Your task to perform on an android device: clear history in the chrome app Image 0: 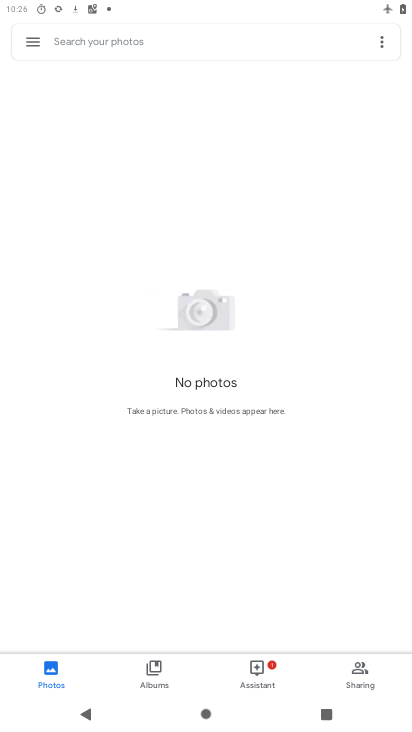
Step 0: press home button
Your task to perform on an android device: clear history in the chrome app Image 1: 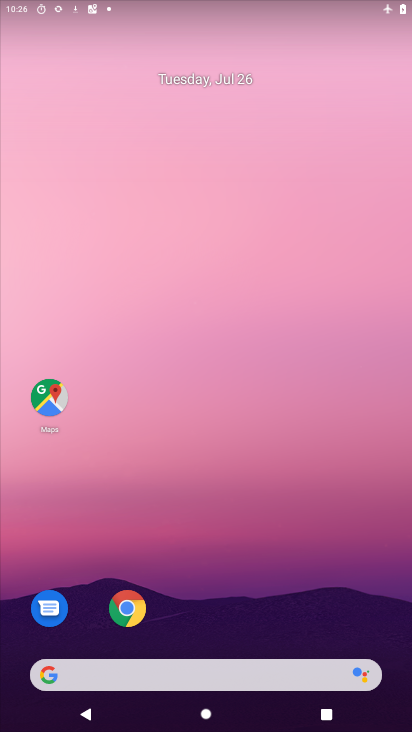
Step 1: click (132, 598)
Your task to perform on an android device: clear history in the chrome app Image 2: 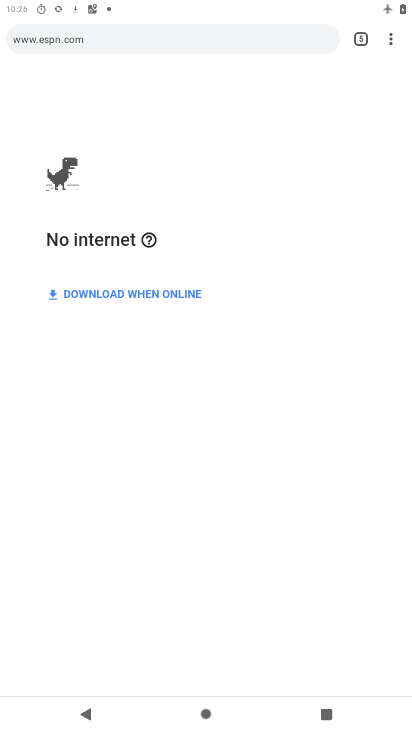
Step 2: click (385, 34)
Your task to perform on an android device: clear history in the chrome app Image 3: 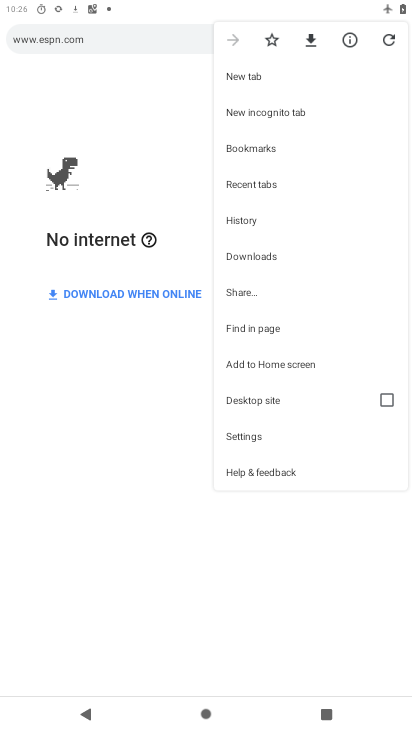
Step 3: click (242, 224)
Your task to perform on an android device: clear history in the chrome app Image 4: 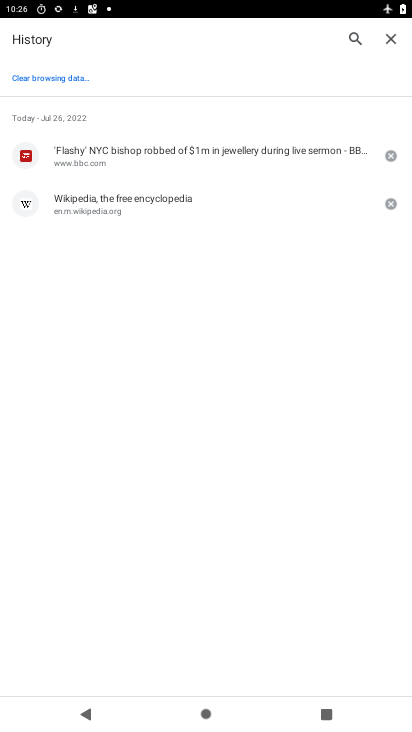
Step 4: click (57, 80)
Your task to perform on an android device: clear history in the chrome app Image 5: 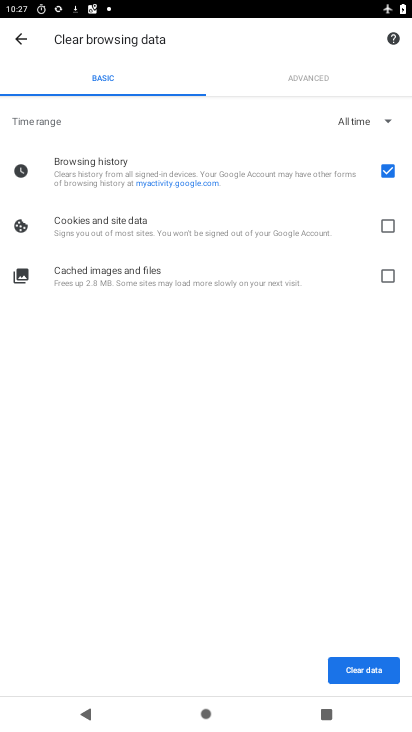
Step 5: click (334, 657)
Your task to perform on an android device: clear history in the chrome app Image 6: 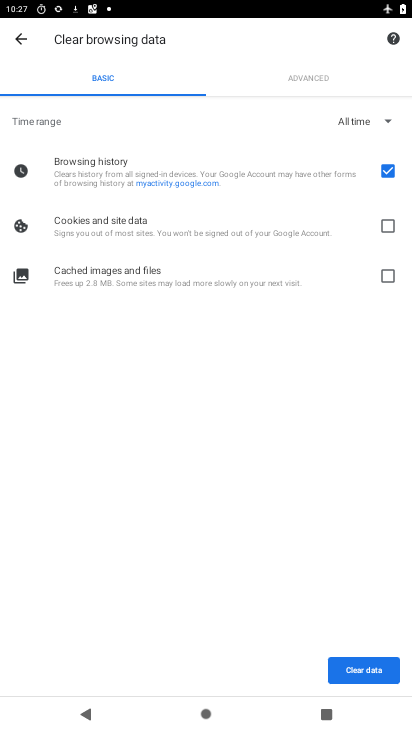
Step 6: click (351, 676)
Your task to perform on an android device: clear history in the chrome app Image 7: 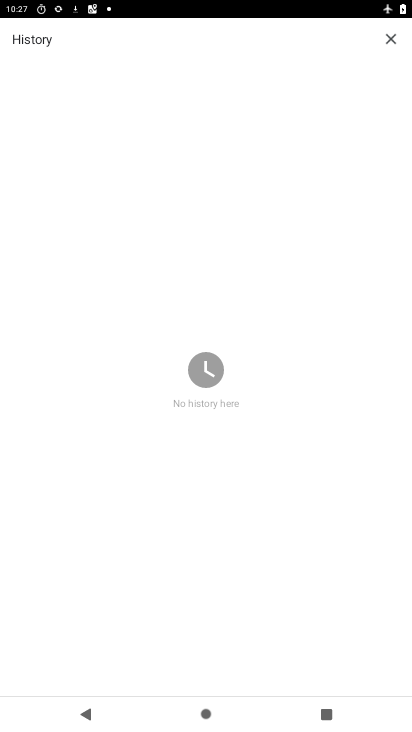
Step 7: task complete